Your task to perform on an android device: turn notification dots on Image 0: 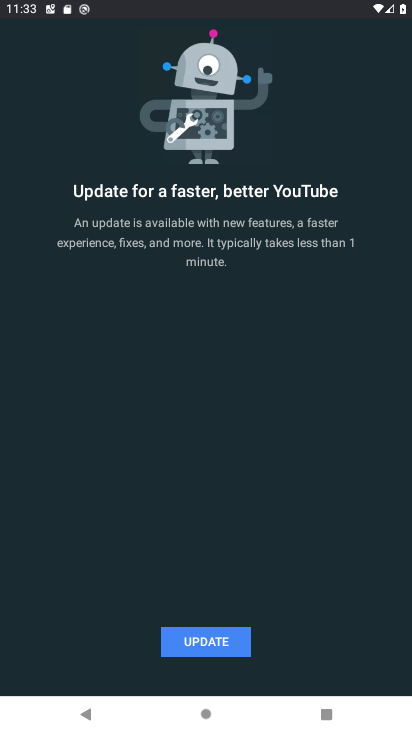
Step 0: press back button
Your task to perform on an android device: turn notification dots on Image 1: 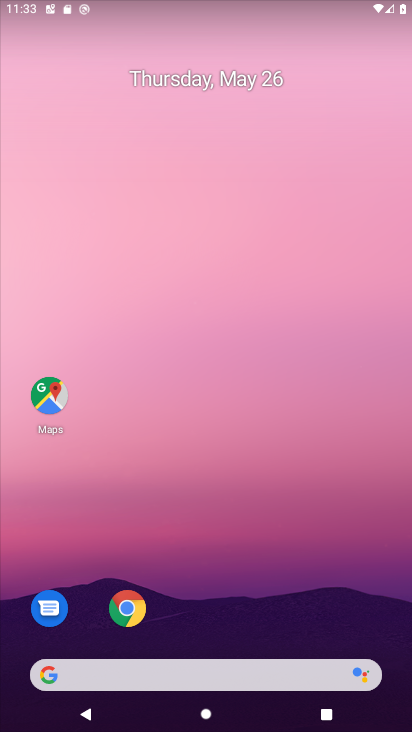
Step 1: drag from (389, 539) to (370, 106)
Your task to perform on an android device: turn notification dots on Image 2: 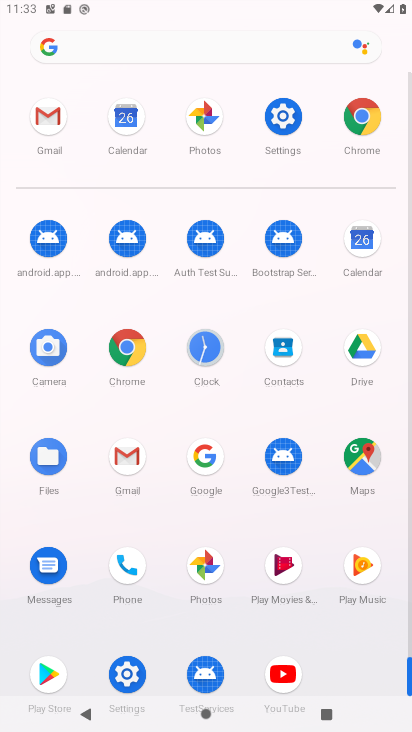
Step 2: click (278, 125)
Your task to perform on an android device: turn notification dots on Image 3: 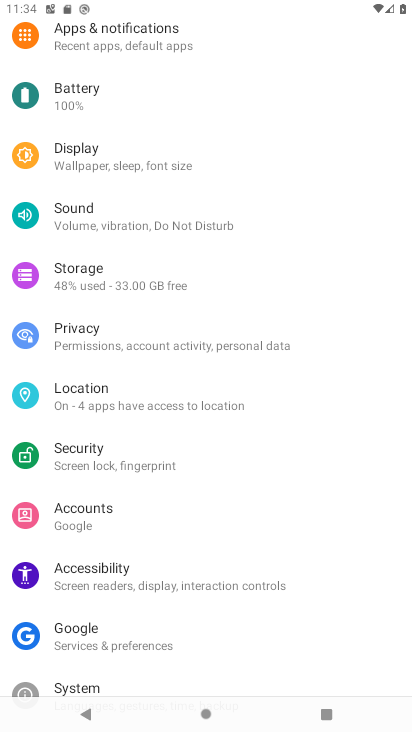
Step 3: drag from (233, 648) to (218, 314)
Your task to perform on an android device: turn notification dots on Image 4: 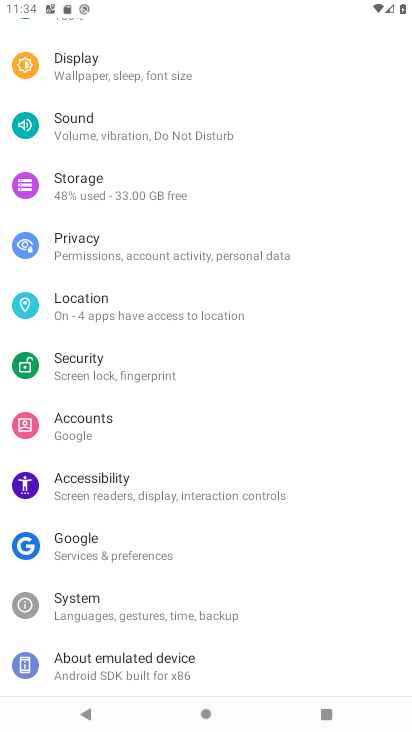
Step 4: drag from (275, 84) to (305, 630)
Your task to perform on an android device: turn notification dots on Image 5: 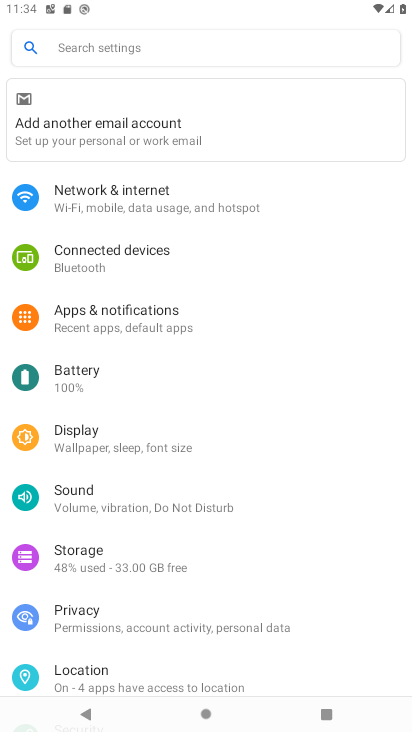
Step 5: click (97, 318)
Your task to perform on an android device: turn notification dots on Image 6: 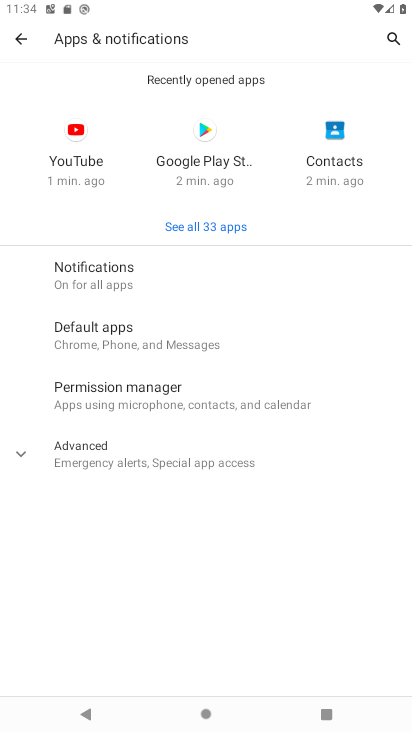
Step 6: click (90, 279)
Your task to perform on an android device: turn notification dots on Image 7: 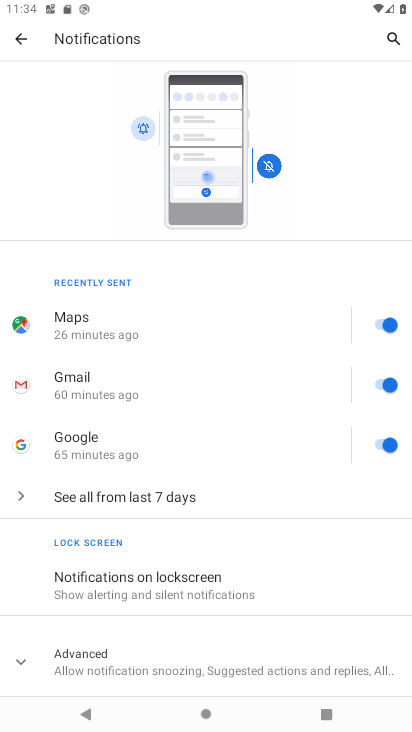
Step 7: drag from (248, 643) to (254, 292)
Your task to perform on an android device: turn notification dots on Image 8: 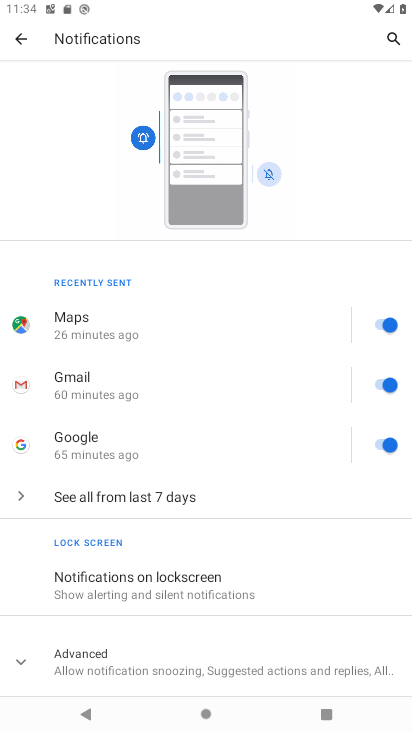
Step 8: click (30, 664)
Your task to perform on an android device: turn notification dots on Image 9: 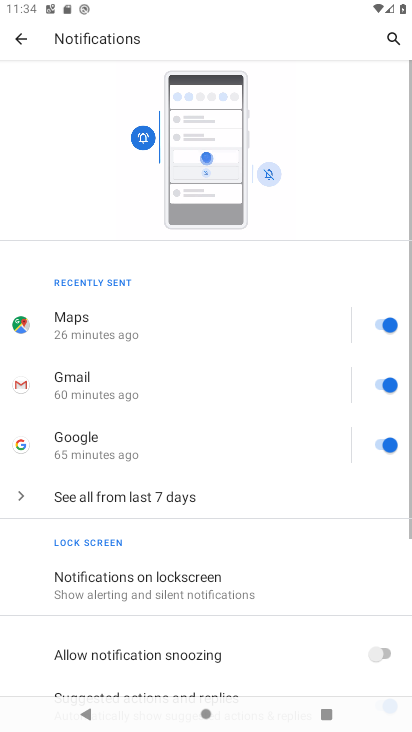
Step 9: drag from (279, 622) to (296, 315)
Your task to perform on an android device: turn notification dots on Image 10: 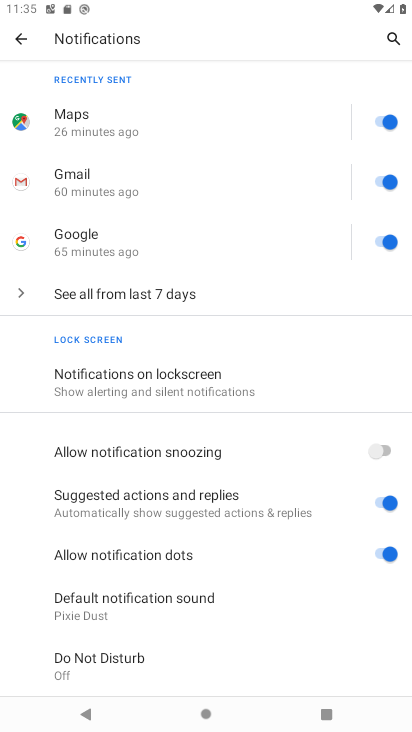
Step 10: click (271, 346)
Your task to perform on an android device: turn notification dots on Image 11: 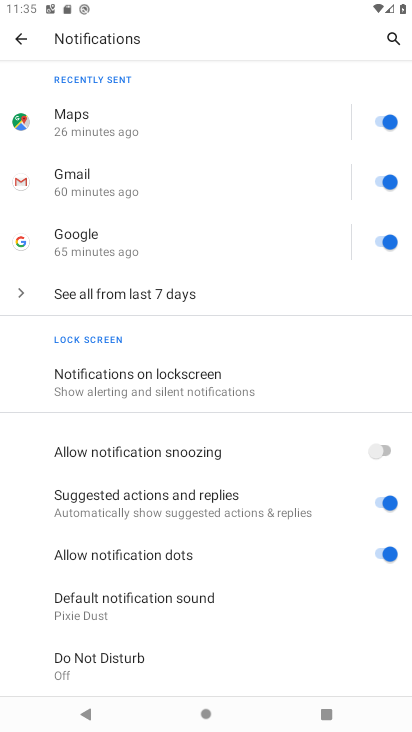
Step 11: task complete